Your task to perform on an android device: Show the shopping cart on newegg.com. Search for lg ultragear on newegg.com, select the first entry, and add it to the cart. Image 0: 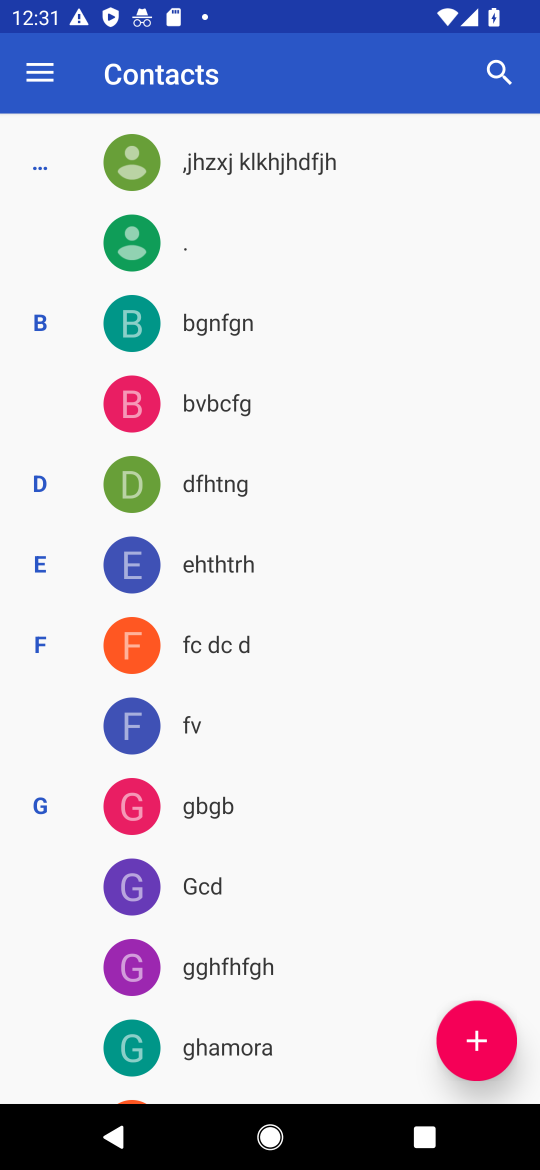
Step 0: task complete